Your task to perform on an android device: turn on airplane mode Image 0: 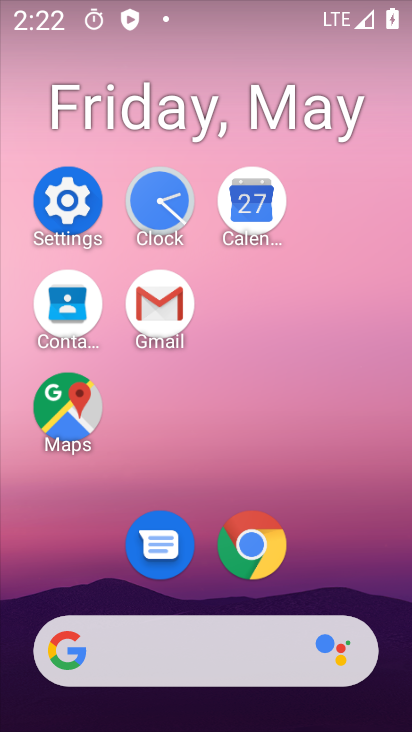
Step 0: click (68, 212)
Your task to perform on an android device: turn on airplane mode Image 1: 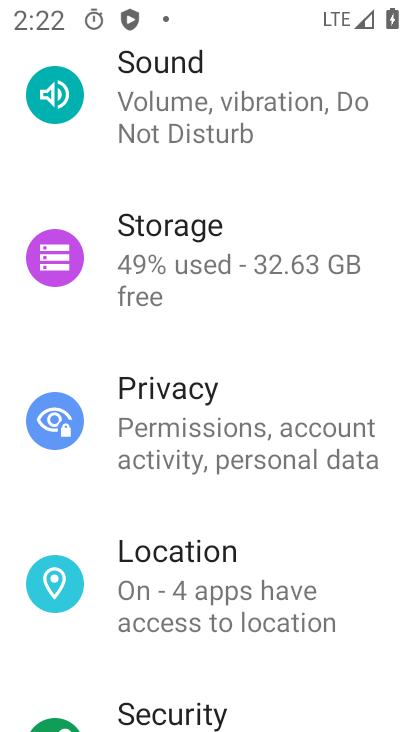
Step 1: drag from (336, 125) to (356, 670)
Your task to perform on an android device: turn on airplane mode Image 2: 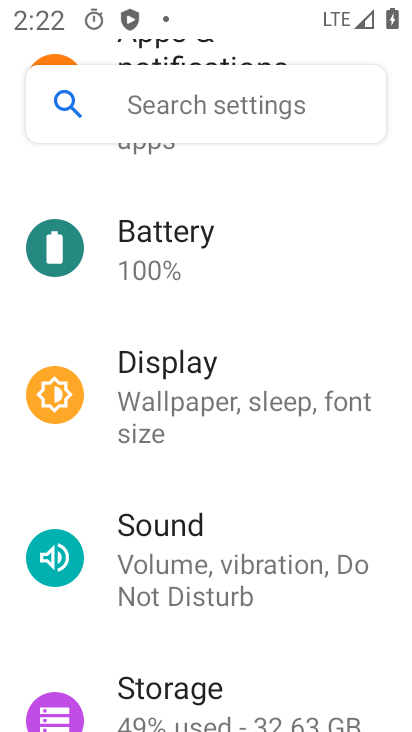
Step 2: drag from (330, 163) to (353, 728)
Your task to perform on an android device: turn on airplane mode Image 3: 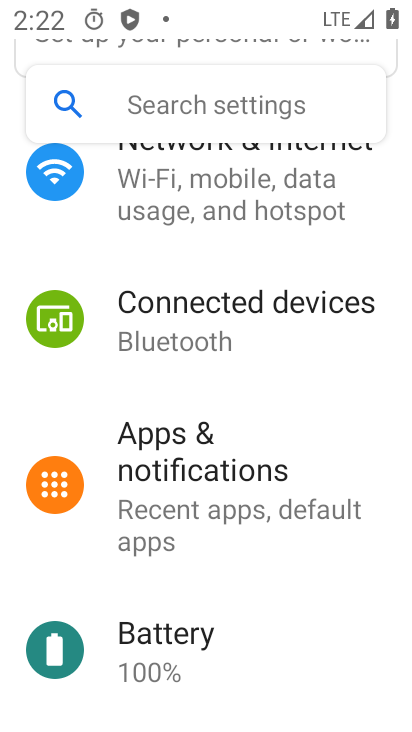
Step 3: drag from (185, 184) to (196, 525)
Your task to perform on an android device: turn on airplane mode Image 4: 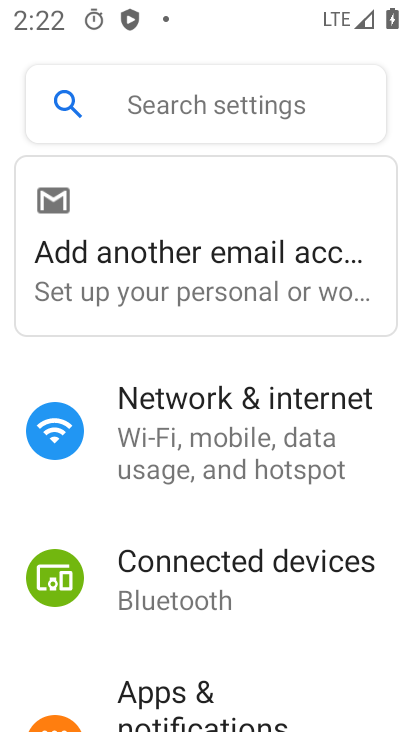
Step 4: click (256, 416)
Your task to perform on an android device: turn on airplane mode Image 5: 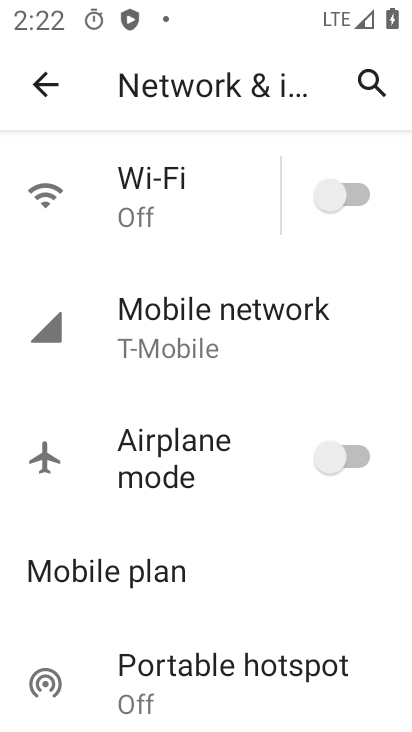
Step 5: click (336, 464)
Your task to perform on an android device: turn on airplane mode Image 6: 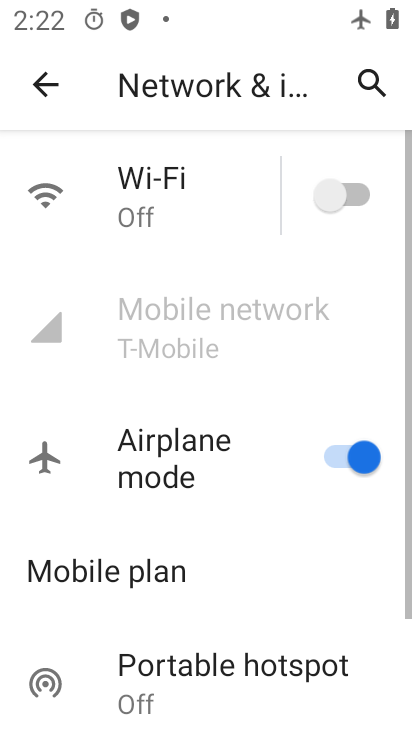
Step 6: task complete